Your task to perform on an android device: remove spam from my inbox in the gmail app Image 0: 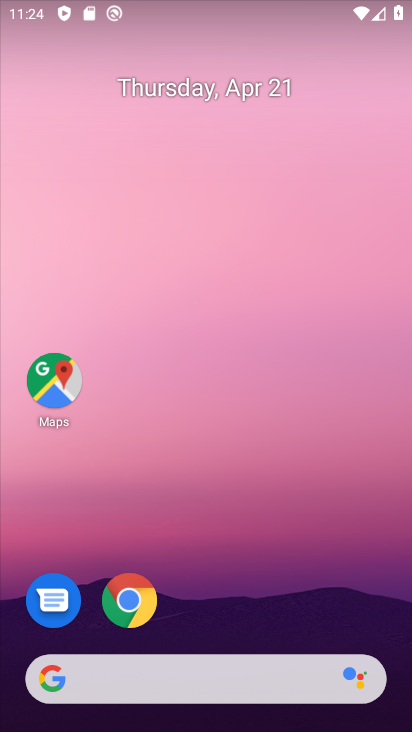
Step 0: drag from (255, 552) to (219, 217)
Your task to perform on an android device: remove spam from my inbox in the gmail app Image 1: 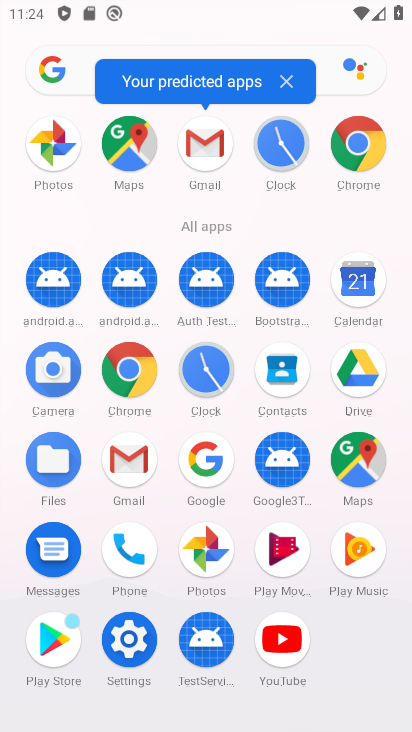
Step 1: click (200, 154)
Your task to perform on an android device: remove spam from my inbox in the gmail app Image 2: 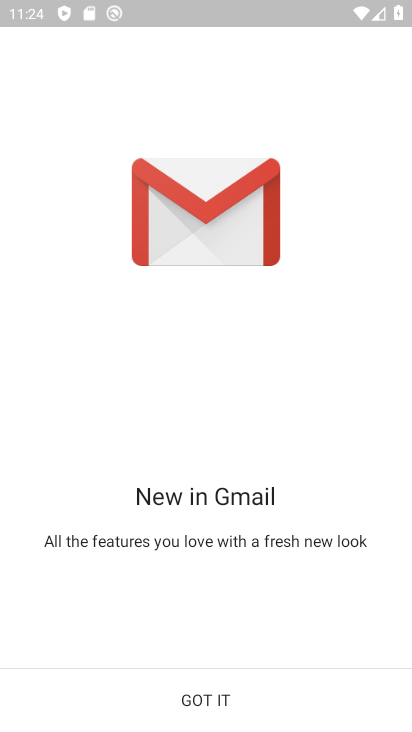
Step 2: click (202, 718)
Your task to perform on an android device: remove spam from my inbox in the gmail app Image 3: 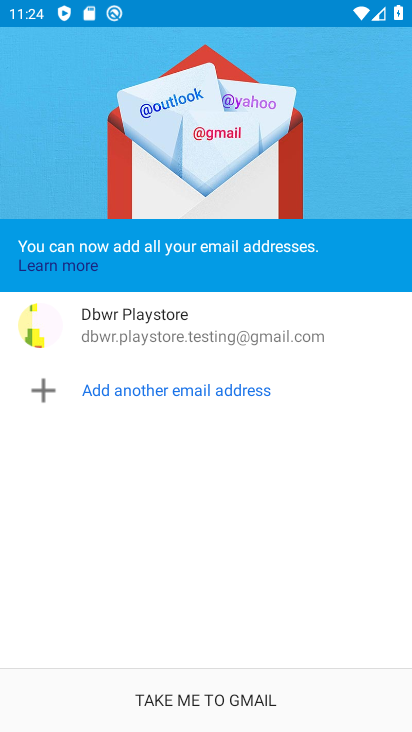
Step 3: click (202, 717)
Your task to perform on an android device: remove spam from my inbox in the gmail app Image 4: 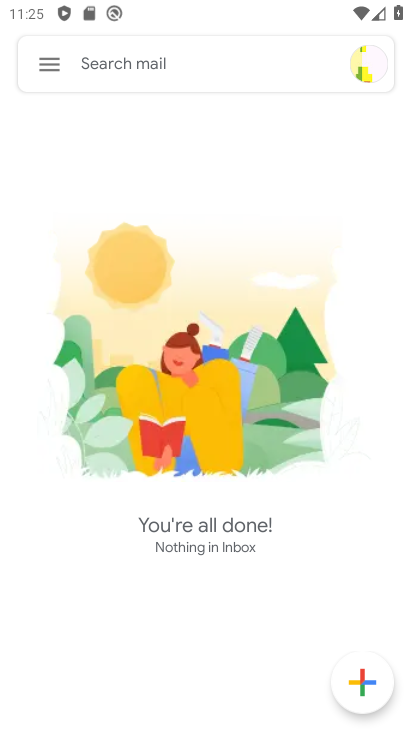
Step 4: click (51, 69)
Your task to perform on an android device: remove spam from my inbox in the gmail app Image 5: 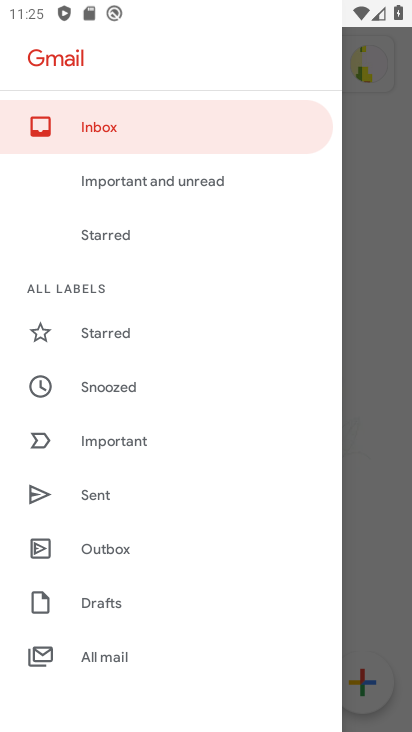
Step 5: drag from (146, 562) to (163, 188)
Your task to perform on an android device: remove spam from my inbox in the gmail app Image 6: 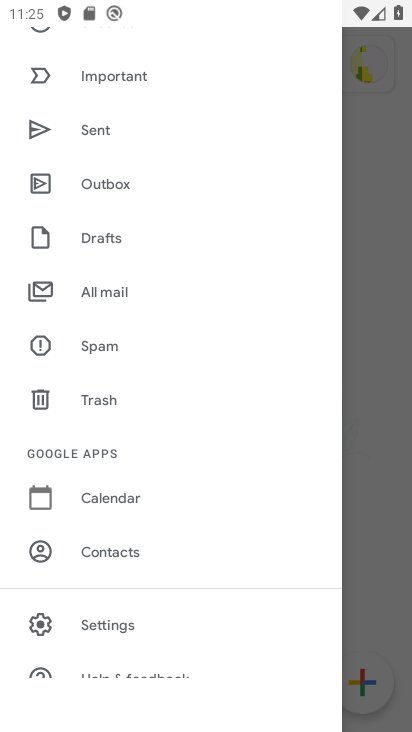
Step 6: click (124, 346)
Your task to perform on an android device: remove spam from my inbox in the gmail app Image 7: 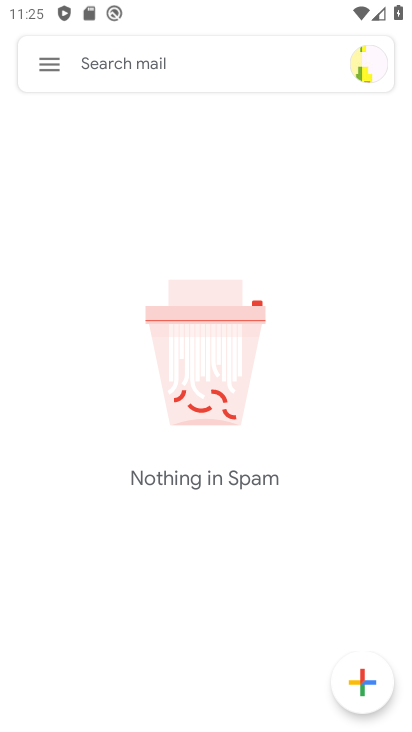
Step 7: task complete